Your task to perform on an android device: turn off notifications in google photos Image 0: 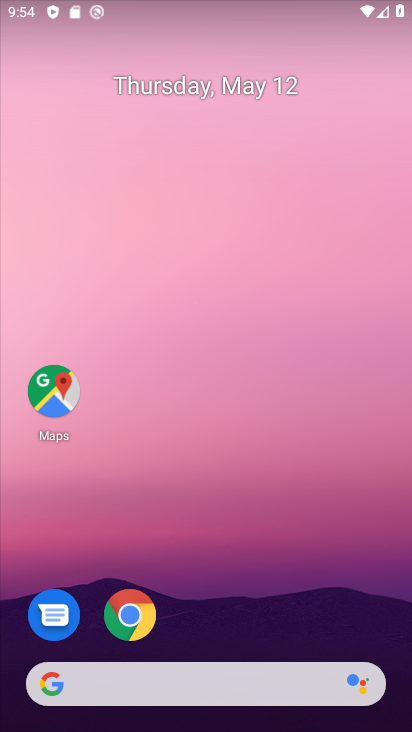
Step 0: drag from (196, 728) to (201, 7)
Your task to perform on an android device: turn off notifications in google photos Image 1: 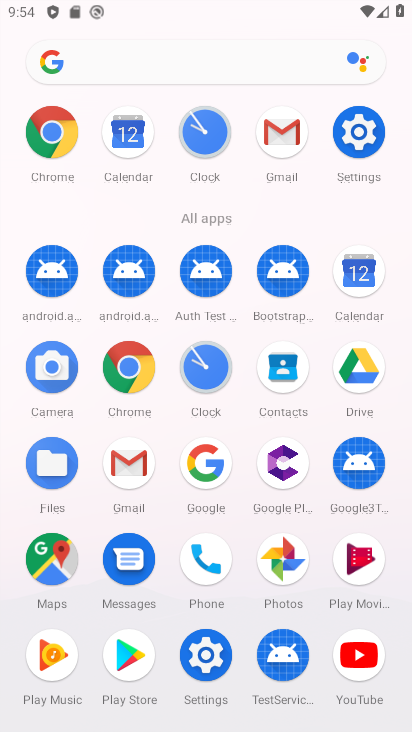
Step 1: click (358, 135)
Your task to perform on an android device: turn off notifications in google photos Image 2: 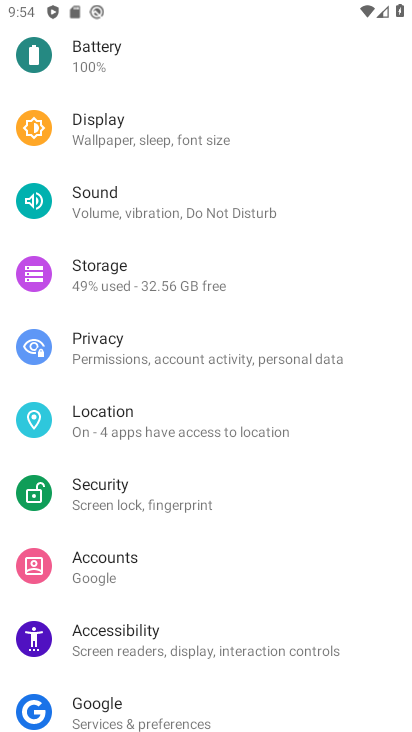
Step 2: drag from (223, 210) to (219, 581)
Your task to perform on an android device: turn off notifications in google photos Image 3: 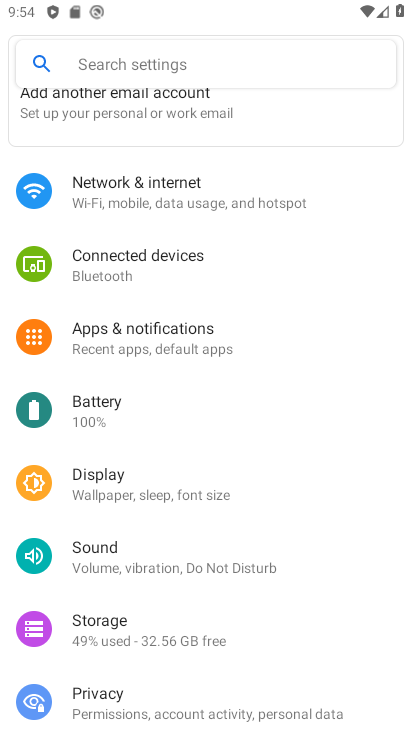
Step 3: click (174, 342)
Your task to perform on an android device: turn off notifications in google photos Image 4: 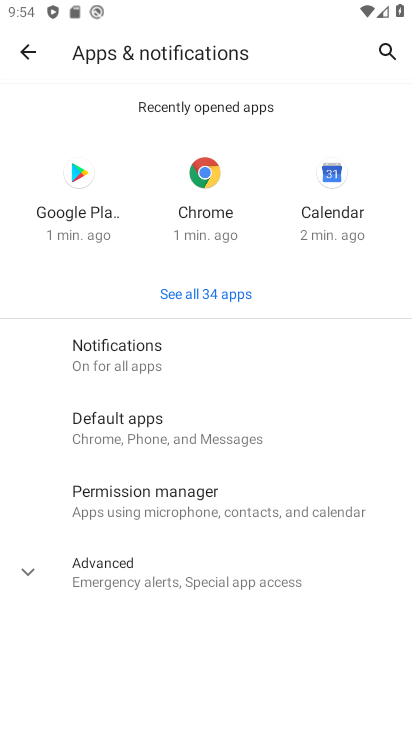
Step 4: click (125, 353)
Your task to perform on an android device: turn off notifications in google photos Image 5: 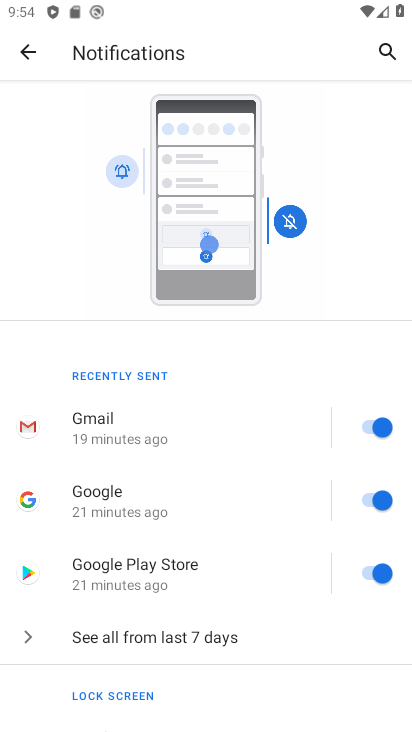
Step 5: drag from (220, 713) to (222, 238)
Your task to perform on an android device: turn off notifications in google photos Image 6: 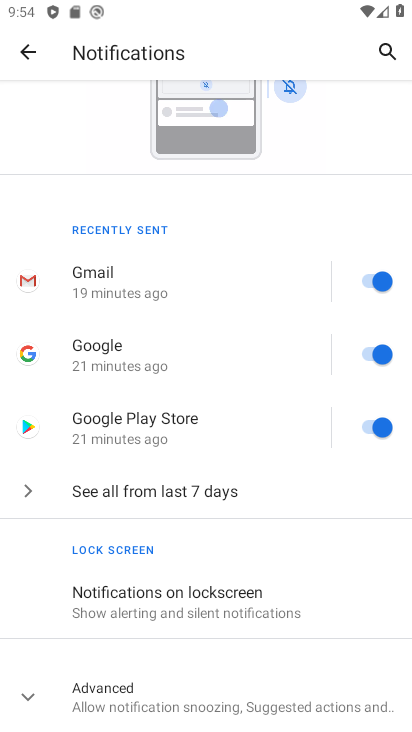
Step 6: drag from (202, 685) to (202, 320)
Your task to perform on an android device: turn off notifications in google photos Image 7: 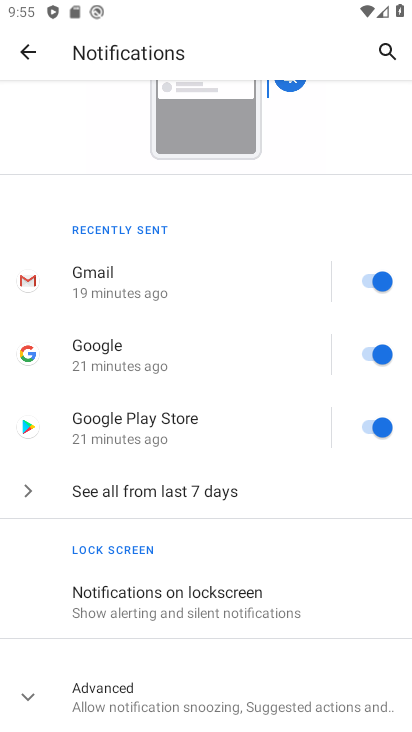
Step 7: drag from (165, 663) to (172, 359)
Your task to perform on an android device: turn off notifications in google photos Image 8: 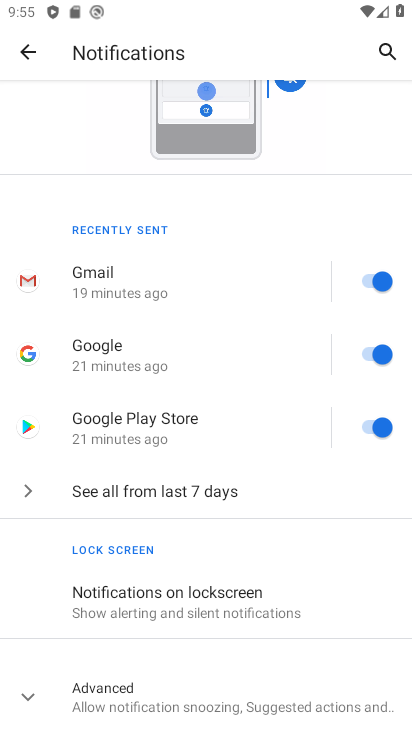
Step 8: press home button
Your task to perform on an android device: turn off notifications in google photos Image 9: 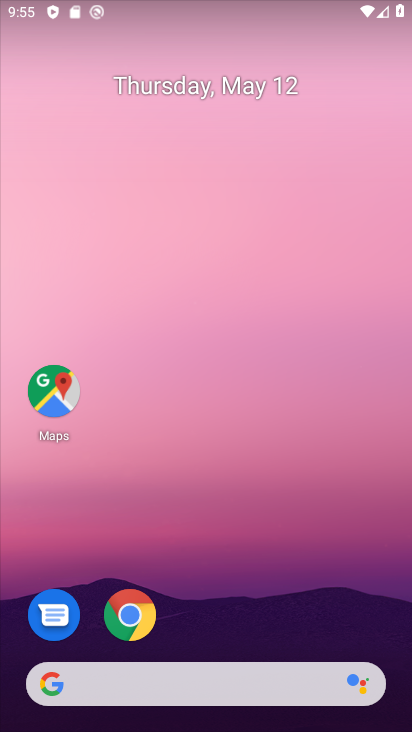
Step 9: drag from (208, 730) to (223, 262)
Your task to perform on an android device: turn off notifications in google photos Image 10: 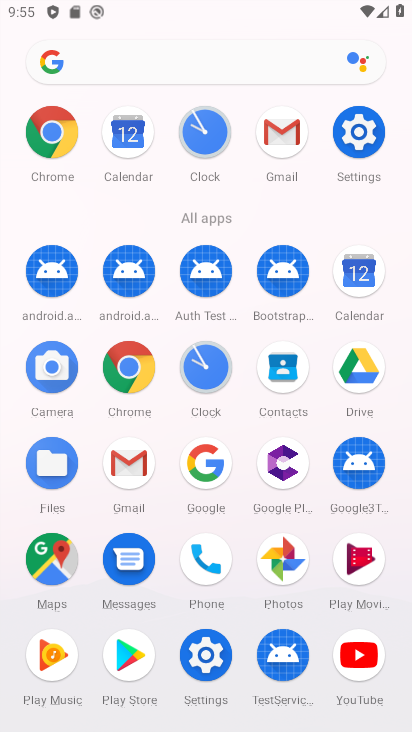
Step 10: click (277, 558)
Your task to perform on an android device: turn off notifications in google photos Image 11: 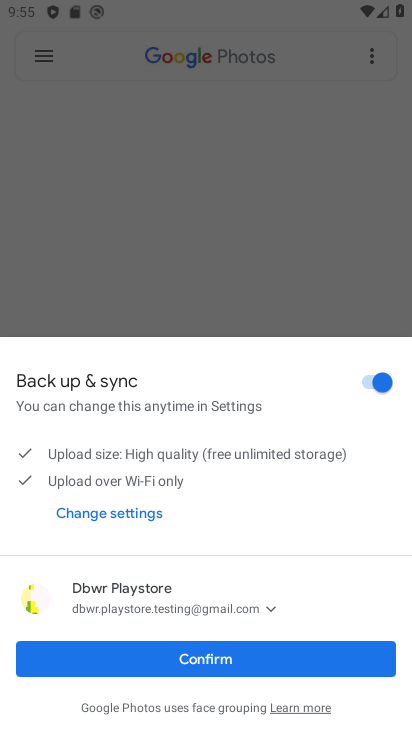
Step 11: click (208, 658)
Your task to perform on an android device: turn off notifications in google photos Image 12: 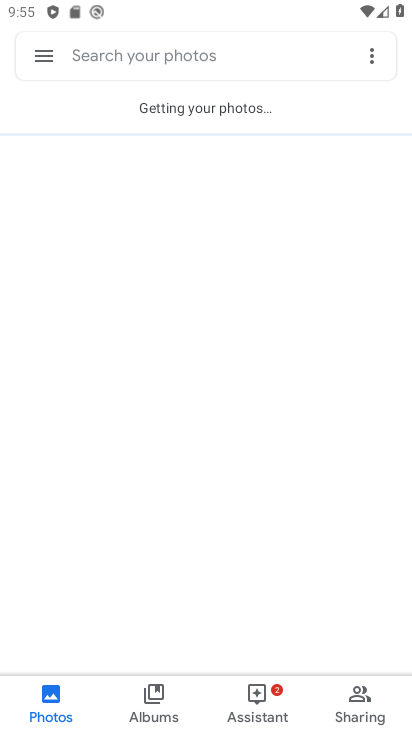
Step 12: click (43, 54)
Your task to perform on an android device: turn off notifications in google photos Image 13: 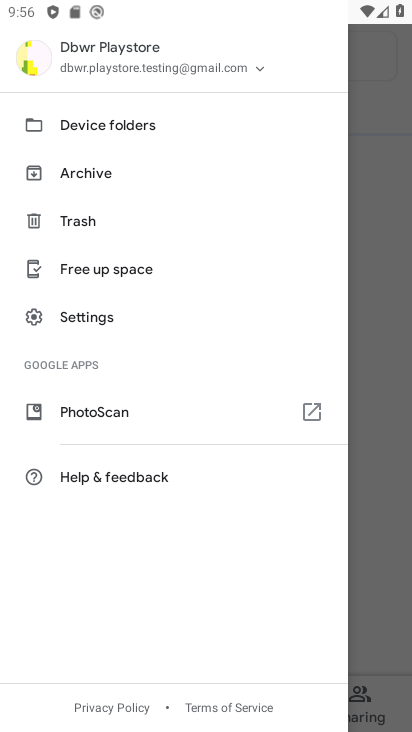
Step 13: click (91, 311)
Your task to perform on an android device: turn off notifications in google photos Image 14: 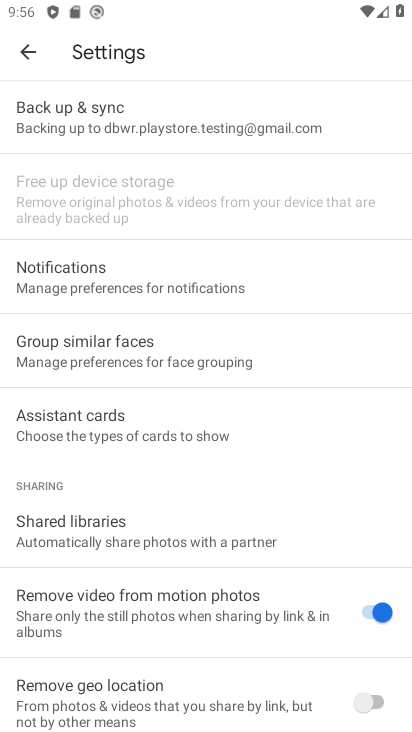
Step 14: click (84, 282)
Your task to perform on an android device: turn off notifications in google photos Image 15: 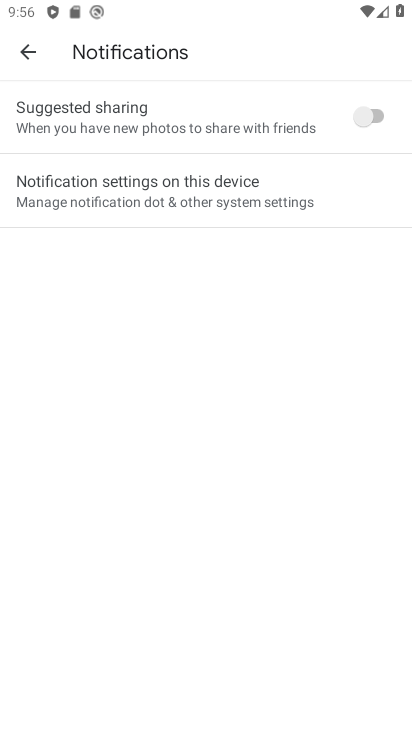
Step 15: click (81, 185)
Your task to perform on an android device: turn off notifications in google photos Image 16: 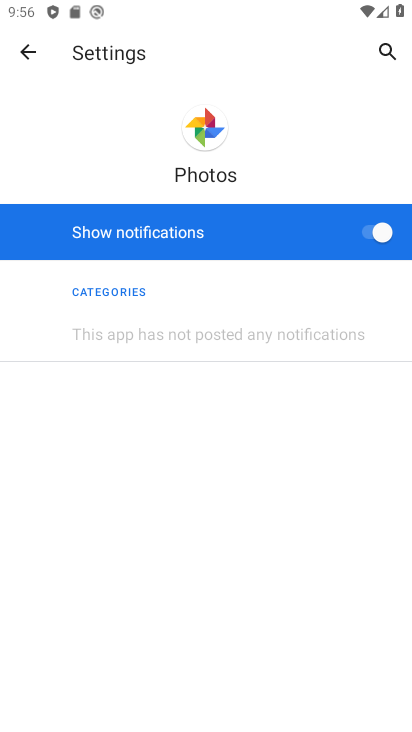
Step 16: click (372, 232)
Your task to perform on an android device: turn off notifications in google photos Image 17: 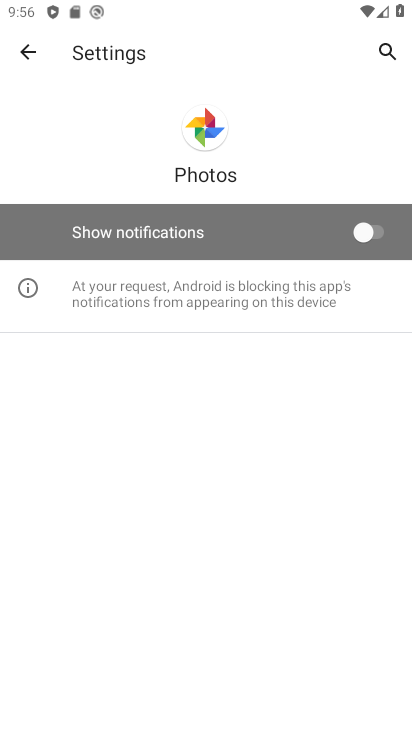
Step 17: task complete